Your task to perform on an android device: Open the stopwatch Image 0: 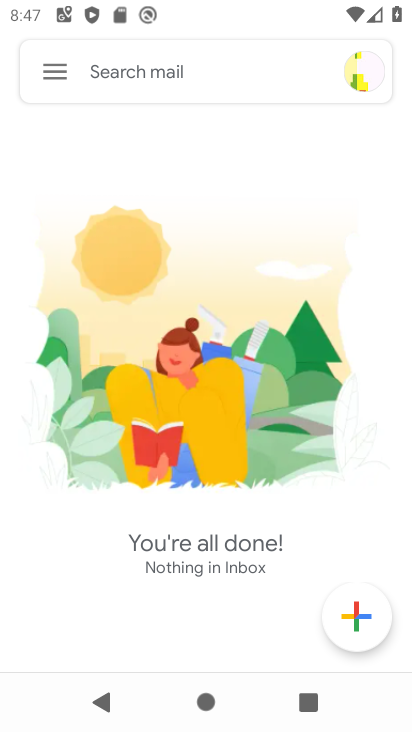
Step 0: press home button
Your task to perform on an android device: Open the stopwatch Image 1: 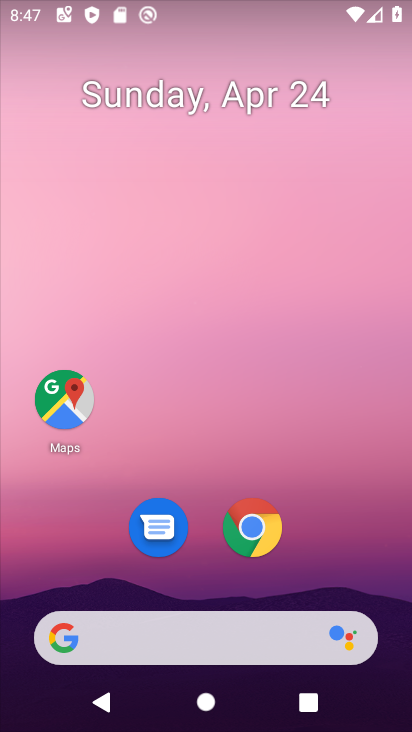
Step 1: drag from (377, 586) to (394, 22)
Your task to perform on an android device: Open the stopwatch Image 2: 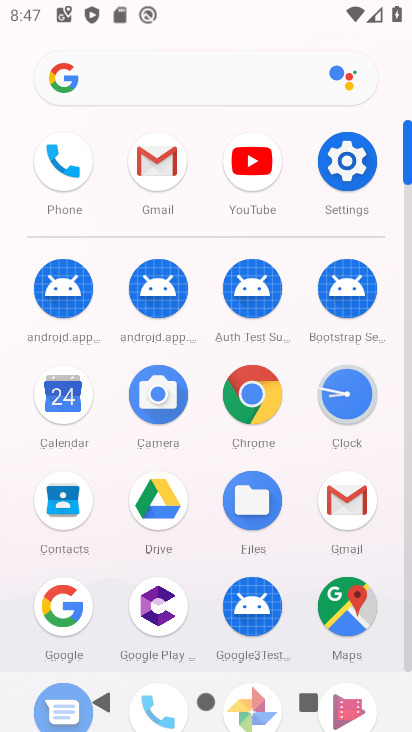
Step 2: click (352, 407)
Your task to perform on an android device: Open the stopwatch Image 3: 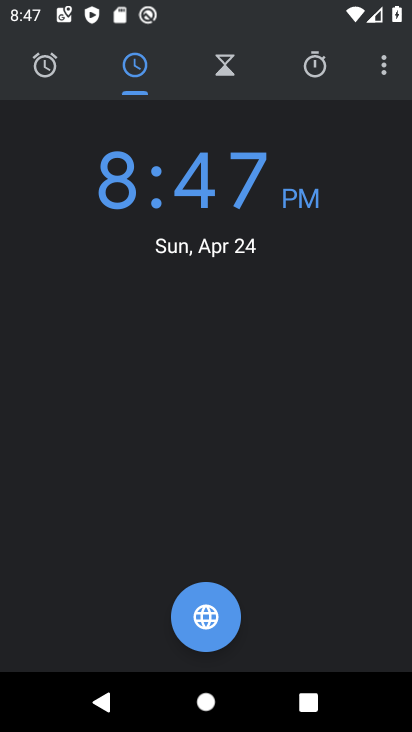
Step 3: click (317, 78)
Your task to perform on an android device: Open the stopwatch Image 4: 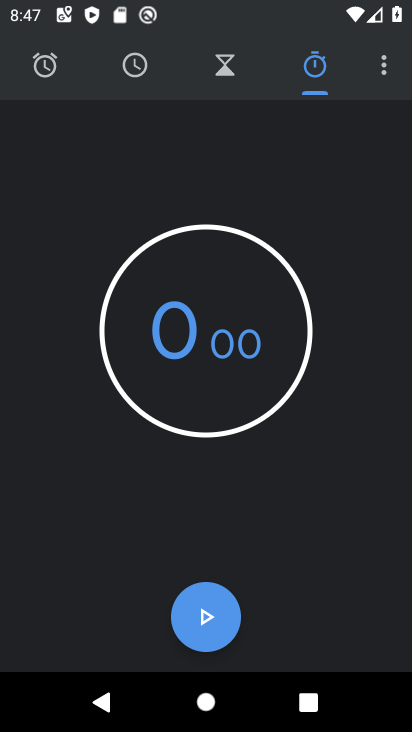
Step 4: task complete